Your task to perform on an android device: delete location history Image 0: 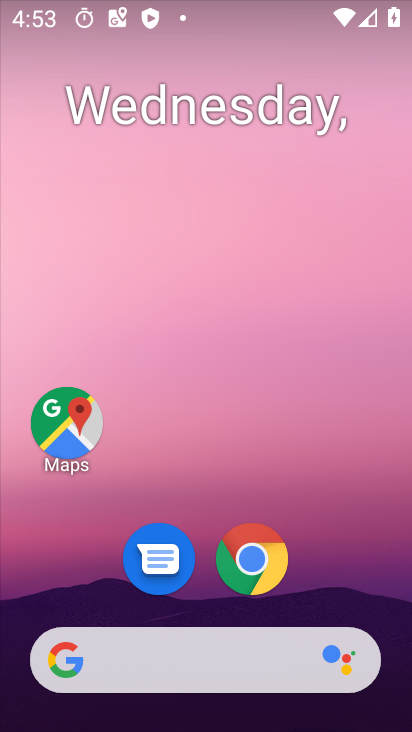
Step 0: drag from (315, 484) to (208, 64)
Your task to perform on an android device: delete location history Image 1: 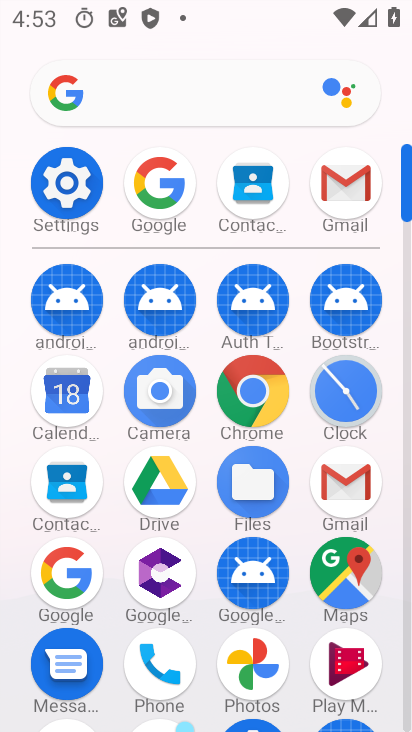
Step 1: click (82, 174)
Your task to perform on an android device: delete location history Image 2: 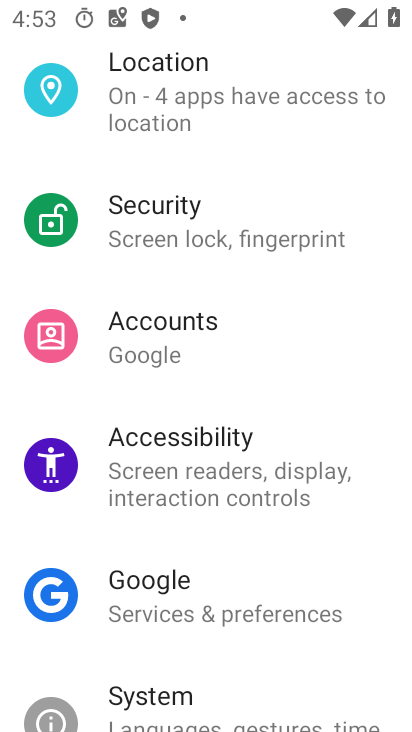
Step 2: drag from (246, 616) to (218, 164)
Your task to perform on an android device: delete location history Image 3: 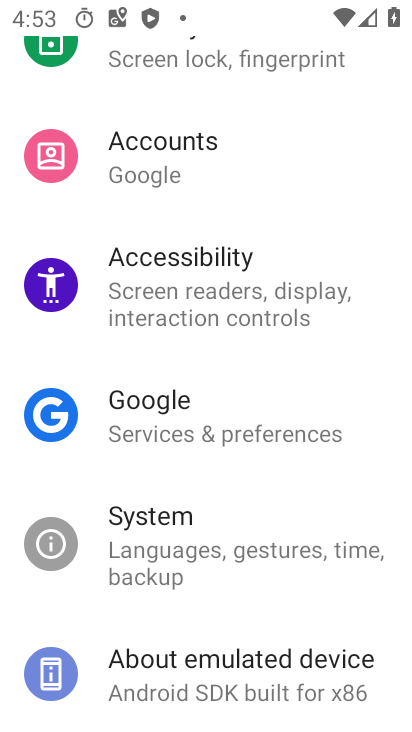
Step 3: drag from (164, 547) to (171, 162)
Your task to perform on an android device: delete location history Image 4: 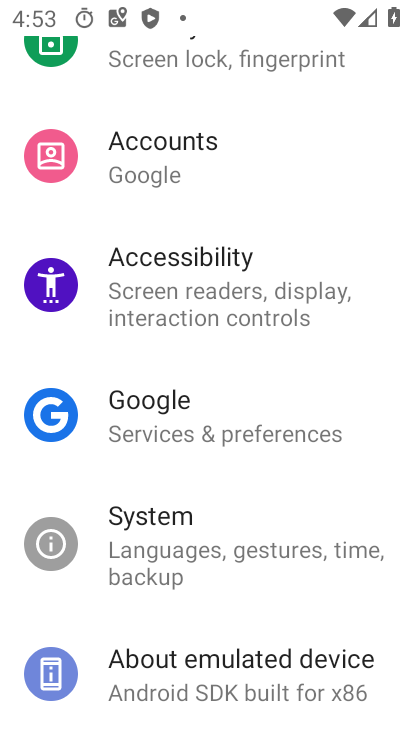
Step 4: drag from (196, 210) to (241, 724)
Your task to perform on an android device: delete location history Image 5: 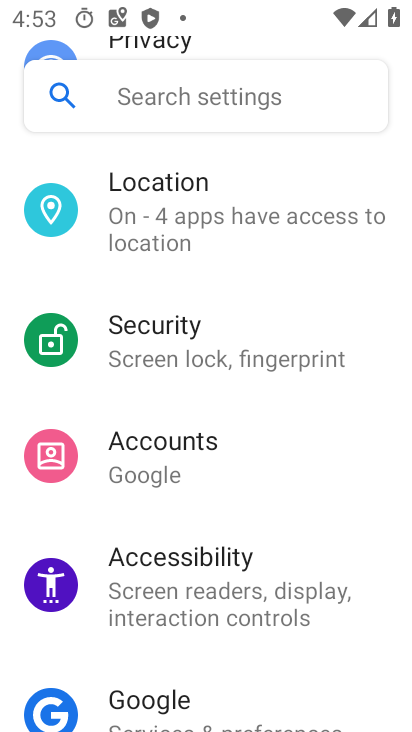
Step 5: drag from (217, 245) to (309, 729)
Your task to perform on an android device: delete location history Image 6: 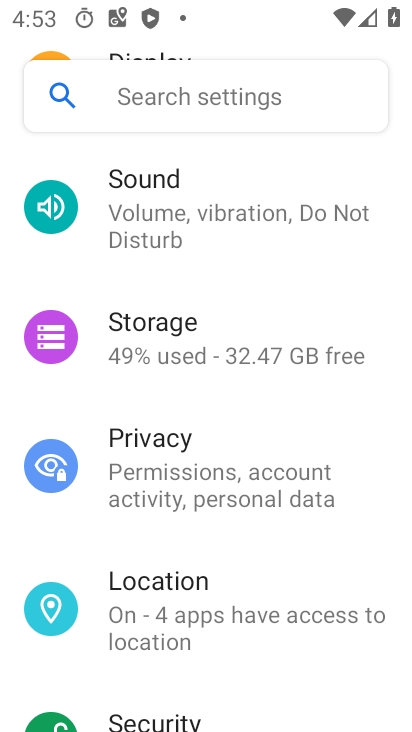
Step 6: drag from (240, 288) to (246, 669)
Your task to perform on an android device: delete location history Image 7: 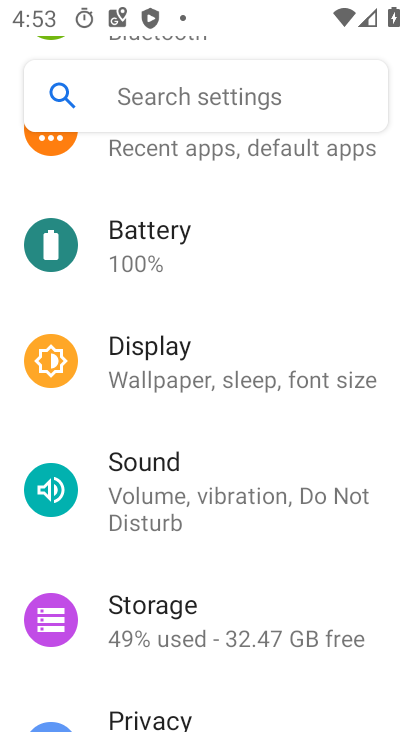
Step 7: drag from (234, 288) to (243, 676)
Your task to perform on an android device: delete location history Image 8: 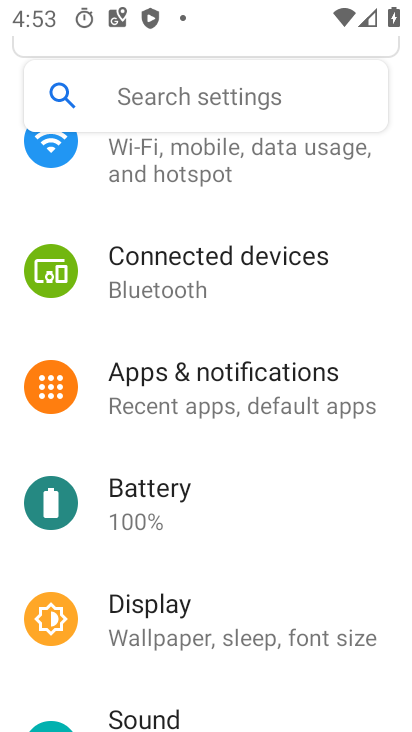
Step 8: drag from (215, 291) to (248, 655)
Your task to perform on an android device: delete location history Image 9: 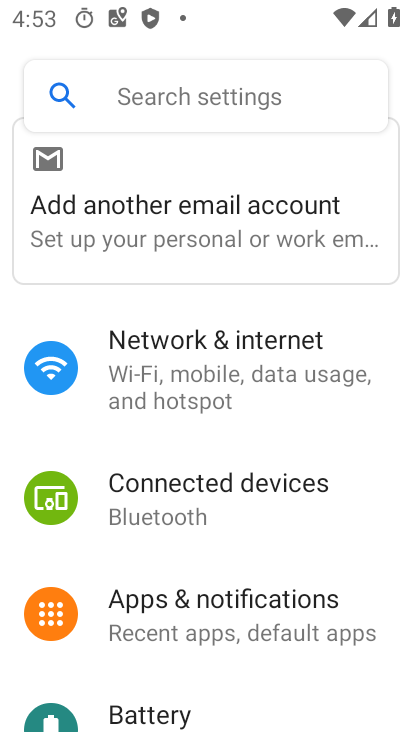
Step 9: drag from (215, 587) to (186, 103)
Your task to perform on an android device: delete location history Image 10: 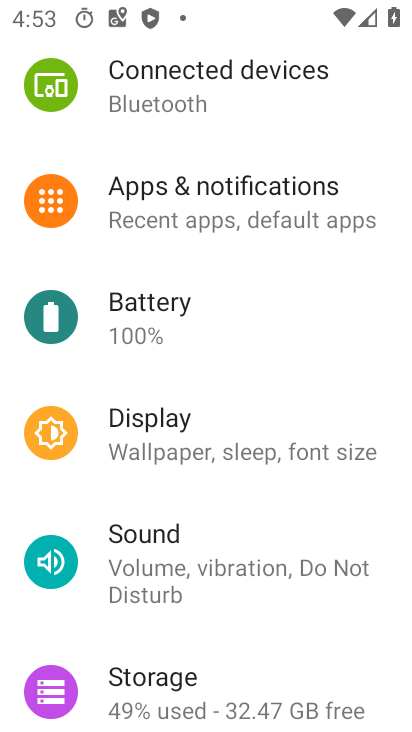
Step 10: drag from (200, 521) to (199, 155)
Your task to perform on an android device: delete location history Image 11: 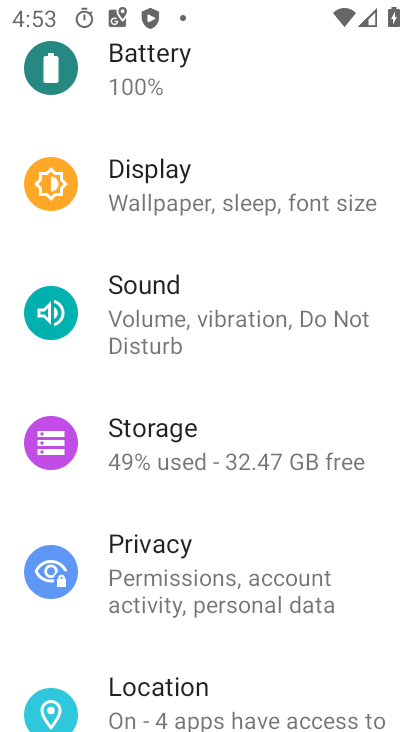
Step 11: click (191, 680)
Your task to perform on an android device: delete location history Image 12: 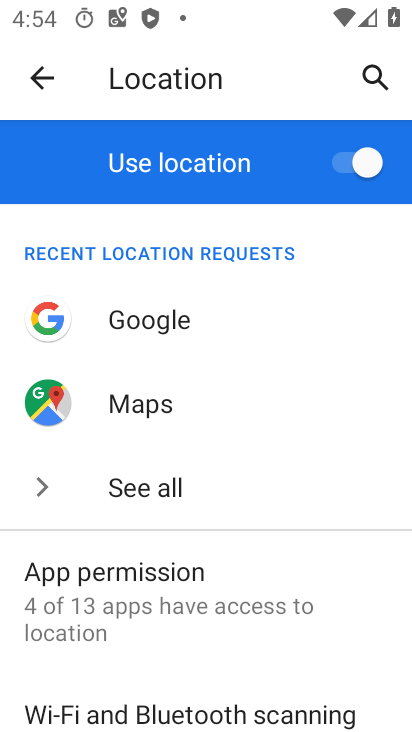
Step 12: drag from (239, 597) to (213, 244)
Your task to perform on an android device: delete location history Image 13: 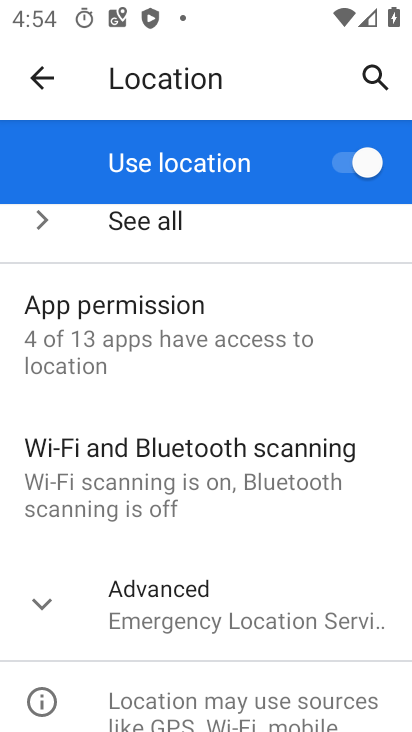
Step 13: click (232, 609)
Your task to perform on an android device: delete location history Image 14: 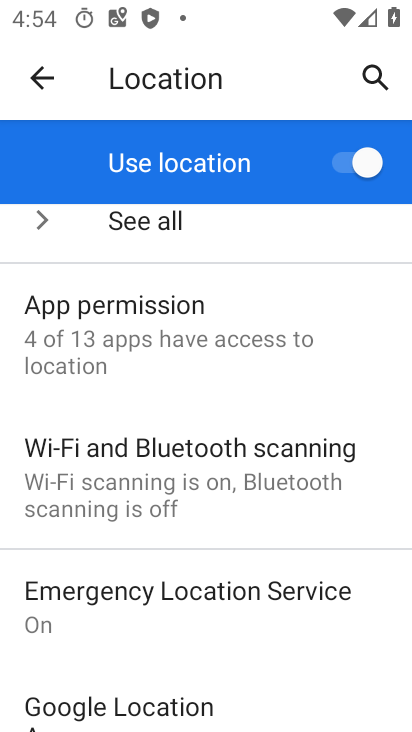
Step 14: drag from (252, 680) to (217, 341)
Your task to perform on an android device: delete location history Image 15: 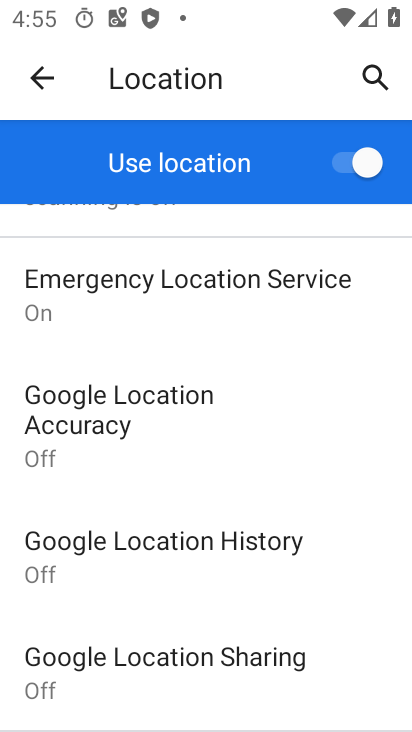
Step 15: click (266, 542)
Your task to perform on an android device: delete location history Image 16: 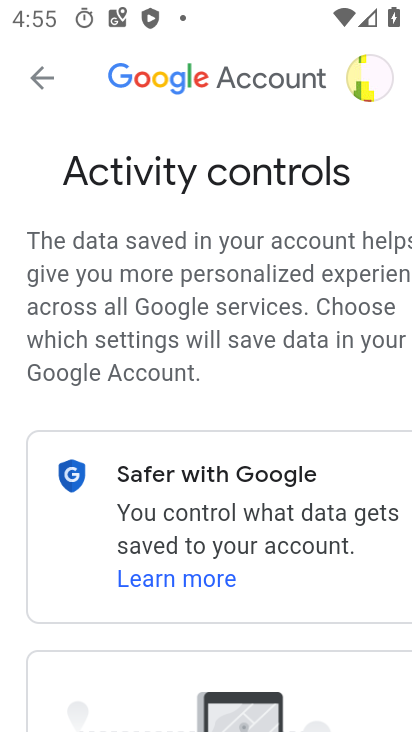
Step 16: drag from (129, 646) to (163, 184)
Your task to perform on an android device: delete location history Image 17: 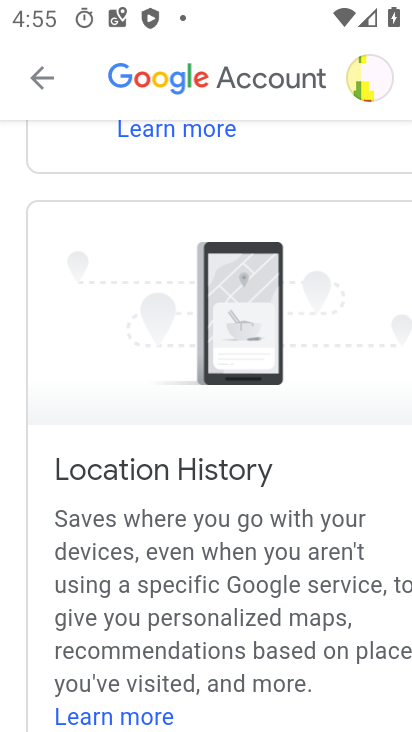
Step 17: drag from (153, 672) to (181, 272)
Your task to perform on an android device: delete location history Image 18: 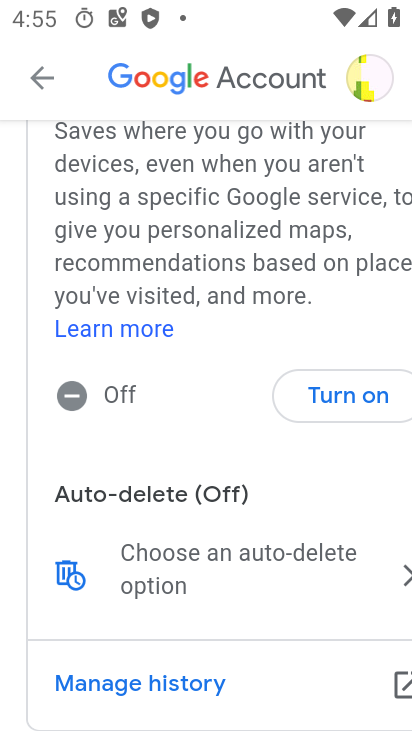
Step 18: click (71, 561)
Your task to perform on an android device: delete location history Image 19: 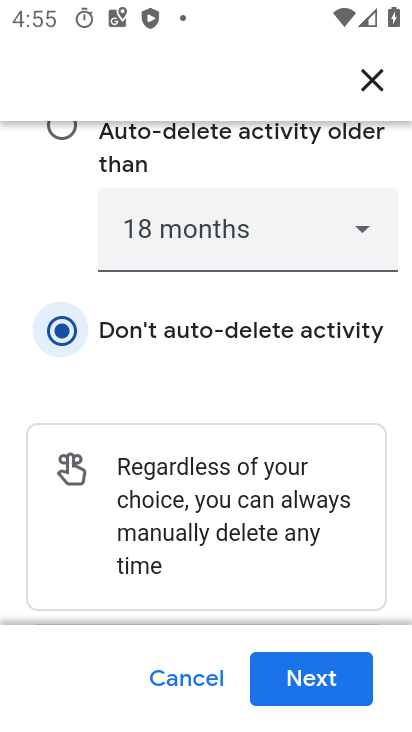
Step 19: click (317, 680)
Your task to perform on an android device: delete location history Image 20: 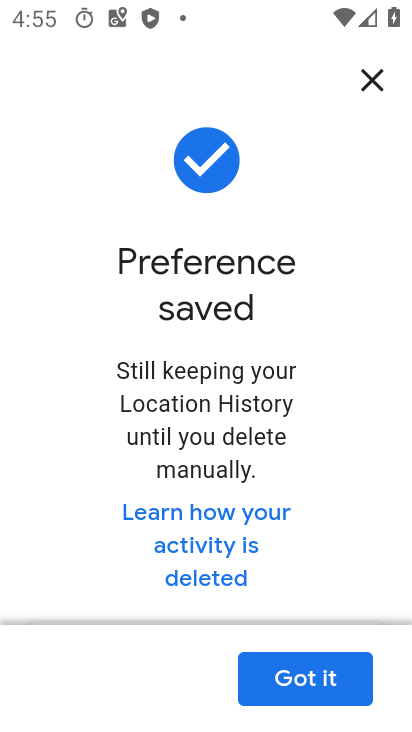
Step 20: click (328, 676)
Your task to perform on an android device: delete location history Image 21: 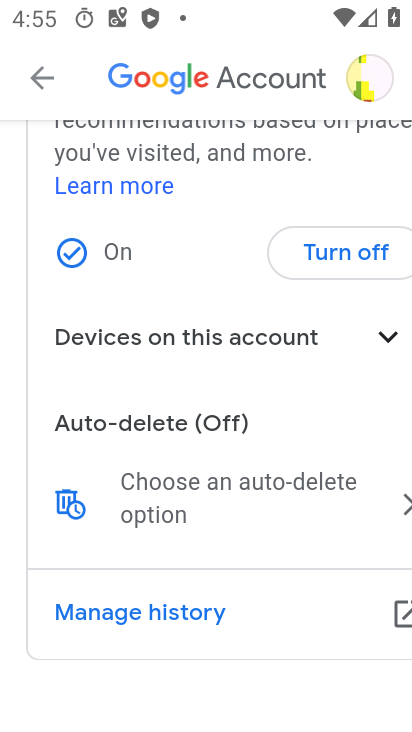
Step 21: task complete